Your task to perform on an android device: open app "Google News" (install if not already installed) Image 0: 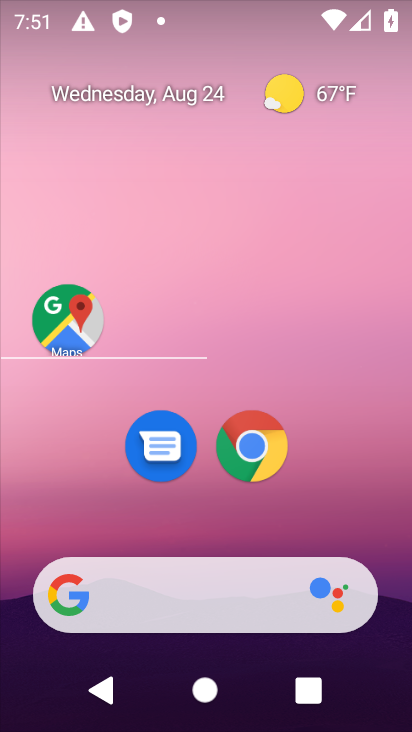
Step 0: press home button
Your task to perform on an android device: open app "Google News" (install if not already installed) Image 1: 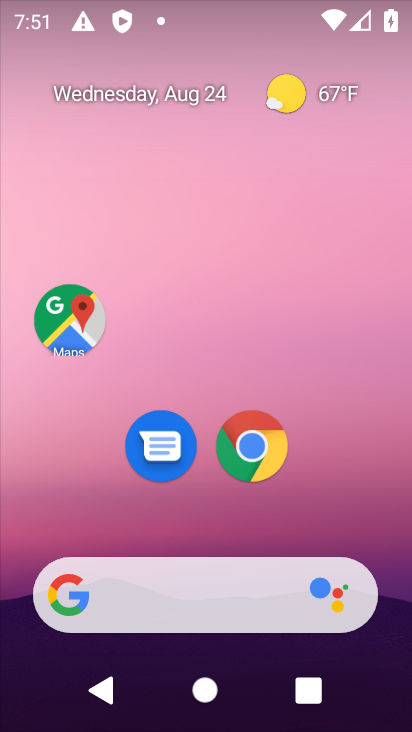
Step 1: drag from (220, 532) to (252, 0)
Your task to perform on an android device: open app "Google News" (install if not already installed) Image 2: 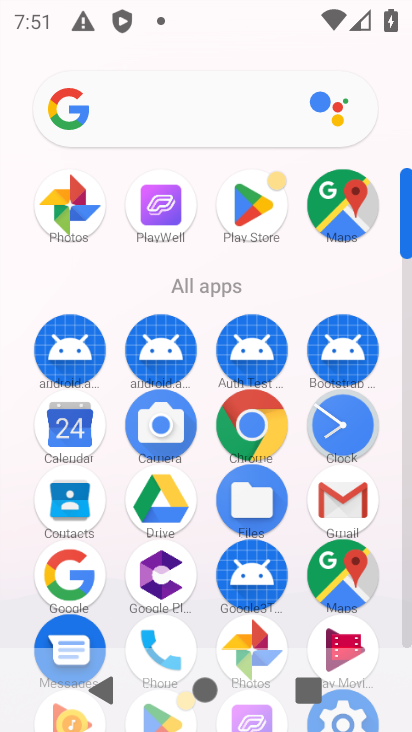
Step 2: click (251, 194)
Your task to perform on an android device: open app "Google News" (install if not already installed) Image 3: 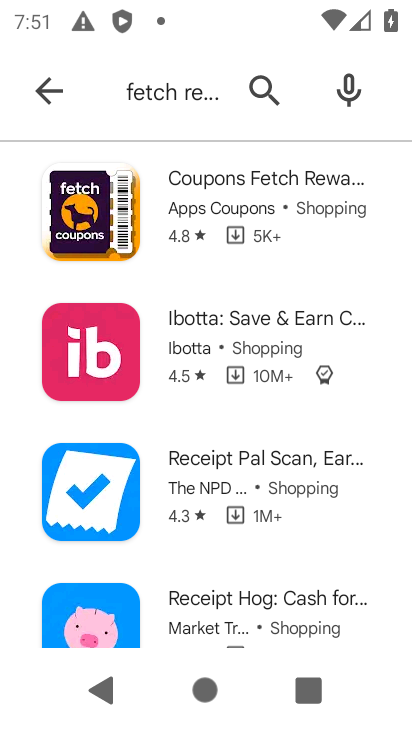
Step 3: click (270, 89)
Your task to perform on an android device: open app "Google News" (install if not already installed) Image 4: 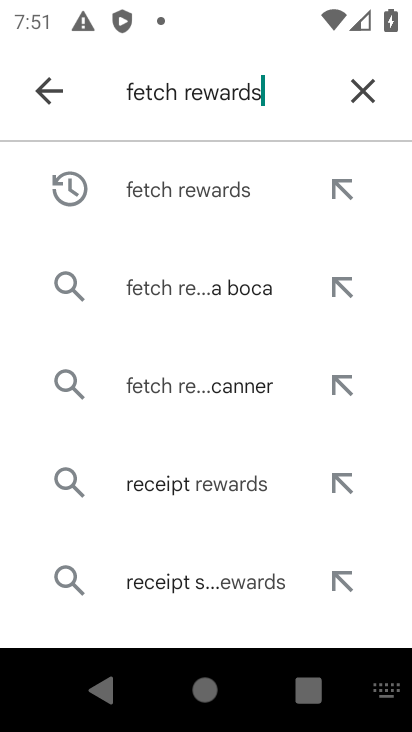
Step 4: click (370, 91)
Your task to perform on an android device: open app "Google News" (install if not already installed) Image 5: 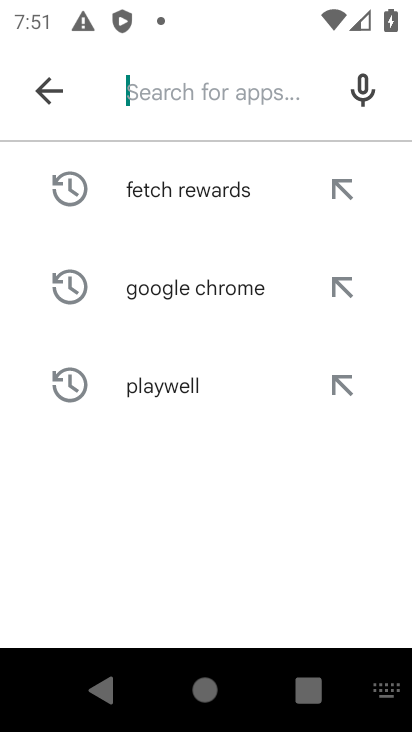
Step 5: type "Google News"
Your task to perform on an android device: open app "Google News" (install if not already installed) Image 6: 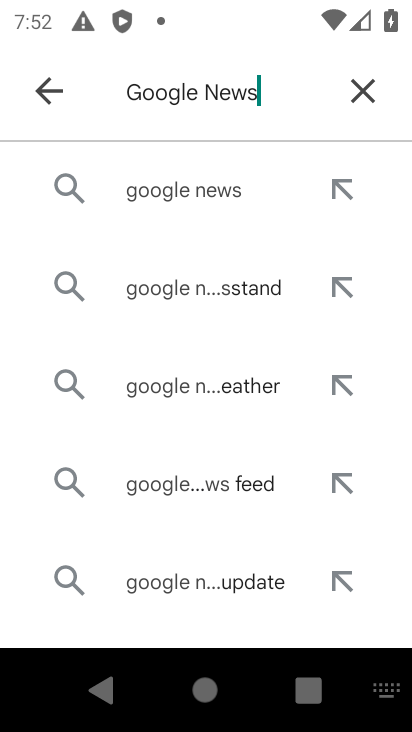
Step 6: click (189, 185)
Your task to perform on an android device: open app "Google News" (install if not already installed) Image 7: 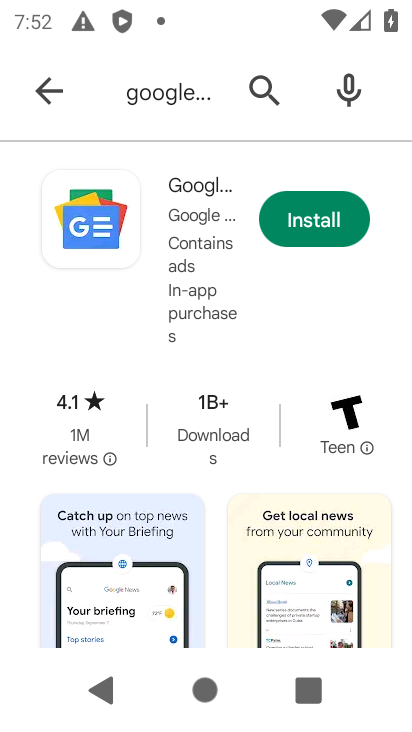
Step 7: click (309, 231)
Your task to perform on an android device: open app "Google News" (install if not already installed) Image 8: 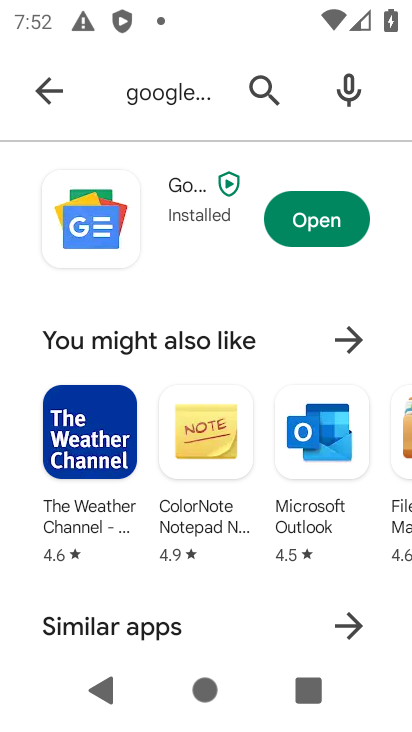
Step 8: click (312, 216)
Your task to perform on an android device: open app "Google News" (install if not already installed) Image 9: 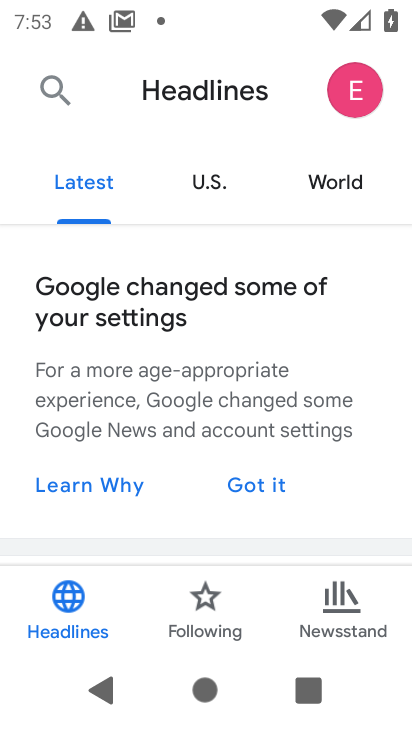
Step 9: task complete